Your task to perform on an android device: When is my next appointment? Image 0: 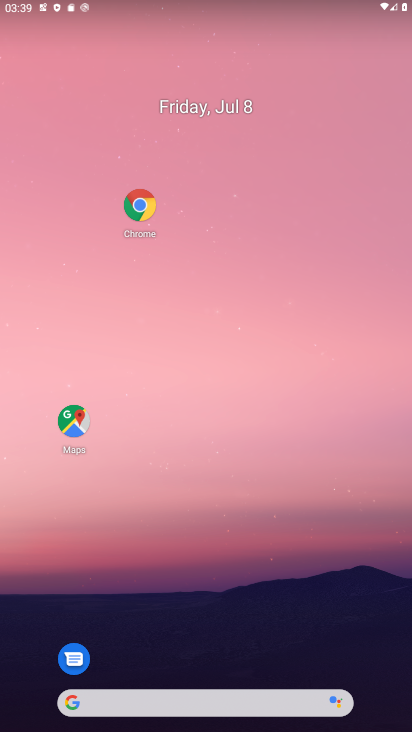
Step 0: drag from (227, 653) to (176, 207)
Your task to perform on an android device: When is my next appointment? Image 1: 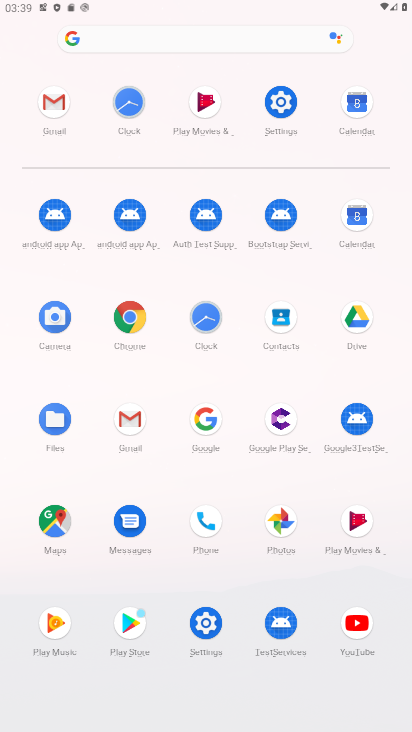
Step 1: click (343, 227)
Your task to perform on an android device: When is my next appointment? Image 2: 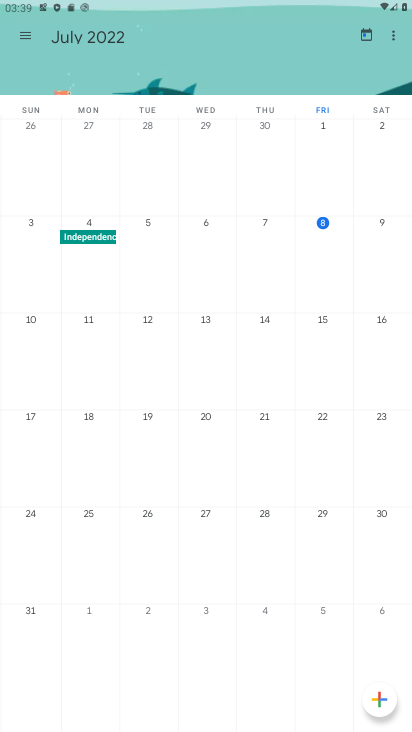
Step 2: click (21, 35)
Your task to perform on an android device: When is my next appointment? Image 3: 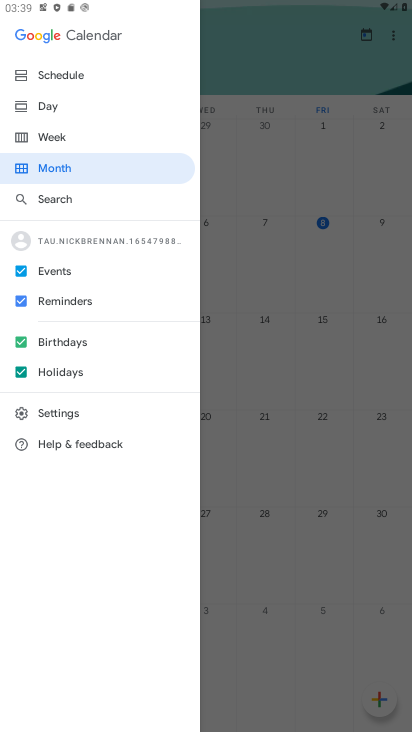
Step 3: click (58, 78)
Your task to perform on an android device: When is my next appointment? Image 4: 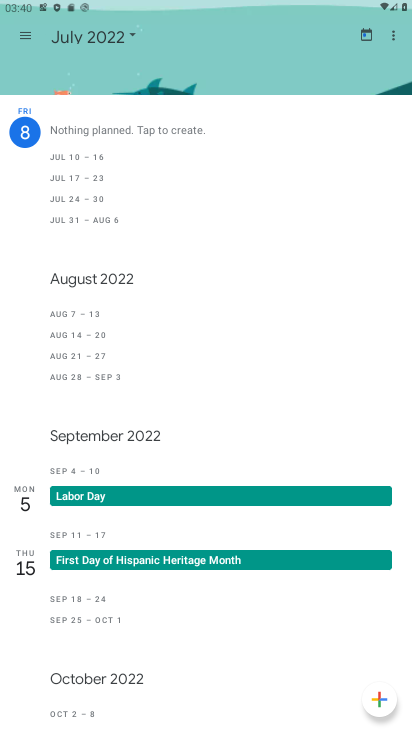
Step 4: task complete